Your task to perform on an android device: toggle airplane mode Image 0: 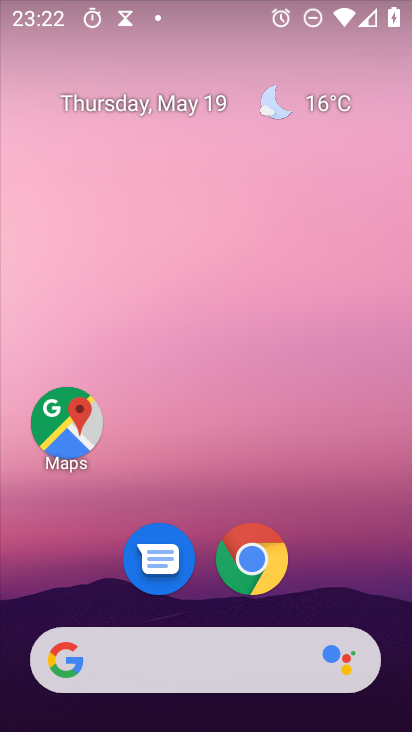
Step 0: drag from (203, 724) to (220, 96)
Your task to perform on an android device: toggle airplane mode Image 1: 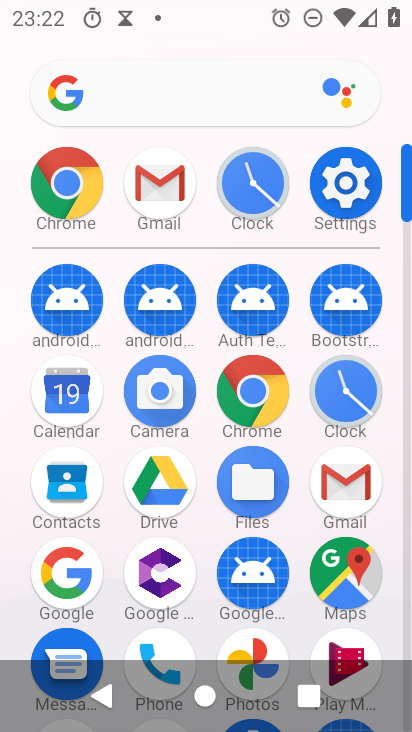
Step 1: click (337, 182)
Your task to perform on an android device: toggle airplane mode Image 2: 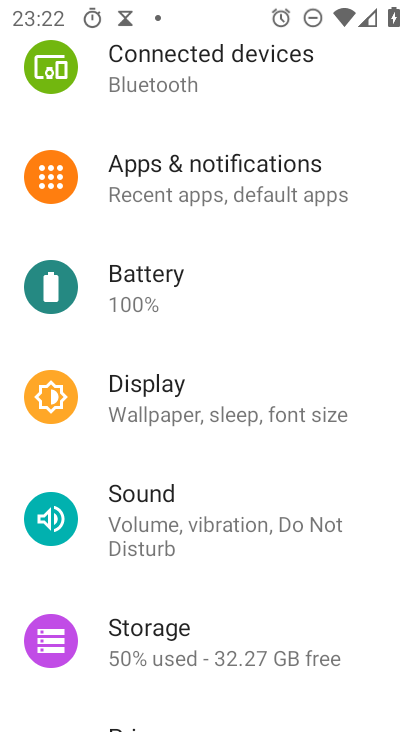
Step 2: drag from (253, 147) to (240, 598)
Your task to perform on an android device: toggle airplane mode Image 3: 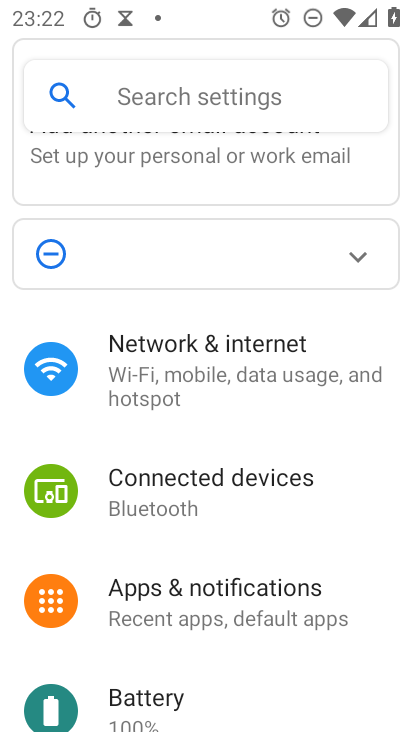
Step 3: click (140, 362)
Your task to perform on an android device: toggle airplane mode Image 4: 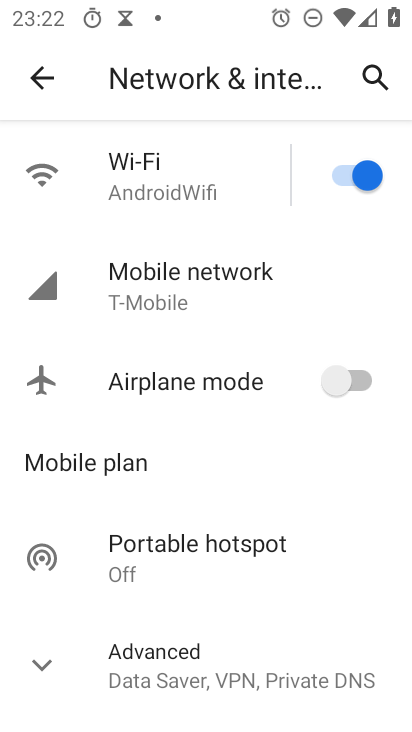
Step 4: click (359, 381)
Your task to perform on an android device: toggle airplane mode Image 5: 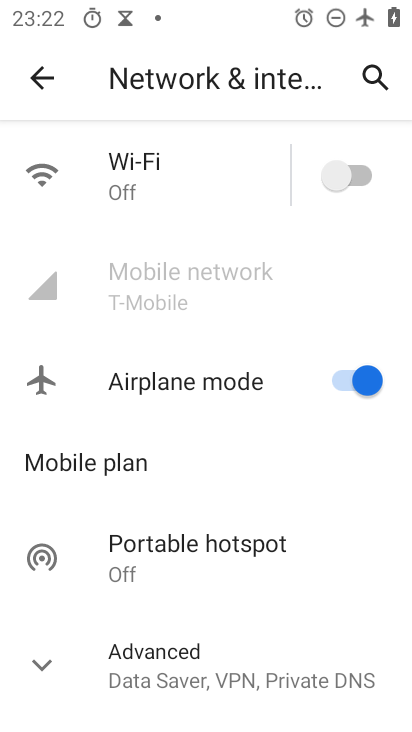
Step 5: task complete